Your task to perform on an android device: Go to wifi settings Image 0: 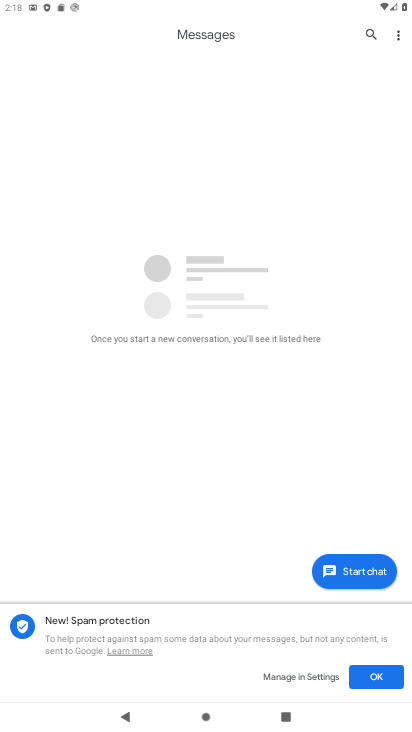
Step 0: press home button
Your task to perform on an android device: Go to wifi settings Image 1: 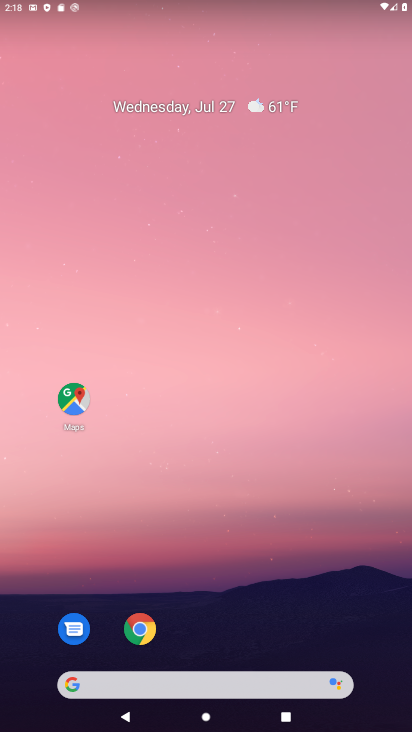
Step 1: drag from (106, 6) to (106, 389)
Your task to perform on an android device: Go to wifi settings Image 2: 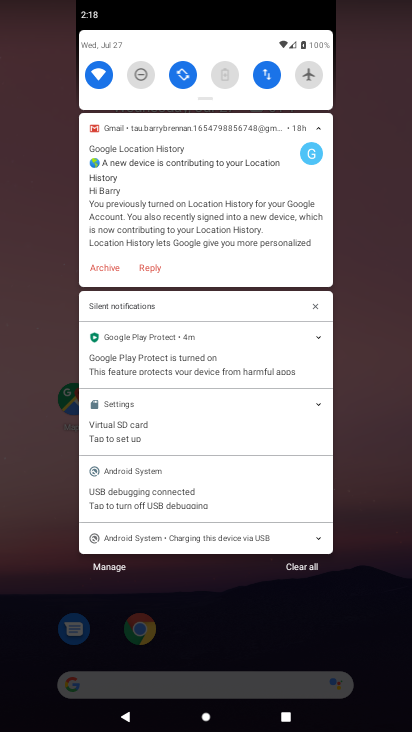
Step 2: click (97, 79)
Your task to perform on an android device: Go to wifi settings Image 3: 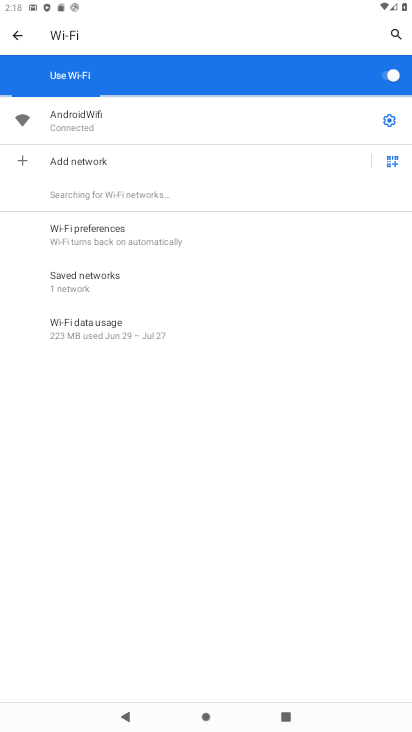
Step 3: task complete